Your task to perform on an android device: uninstall "Fetch Rewards" Image 0: 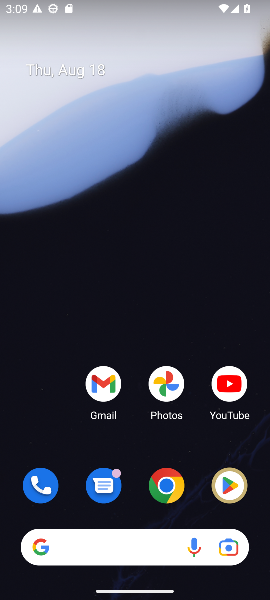
Step 0: click (229, 485)
Your task to perform on an android device: uninstall "Fetch Rewards" Image 1: 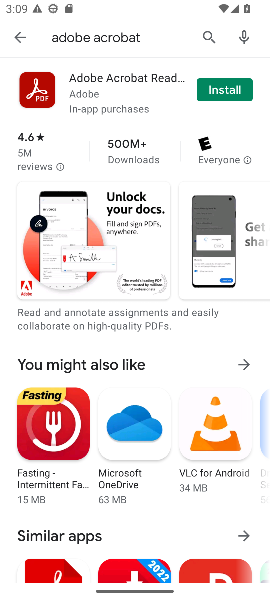
Step 1: click (210, 49)
Your task to perform on an android device: uninstall "Fetch Rewards" Image 2: 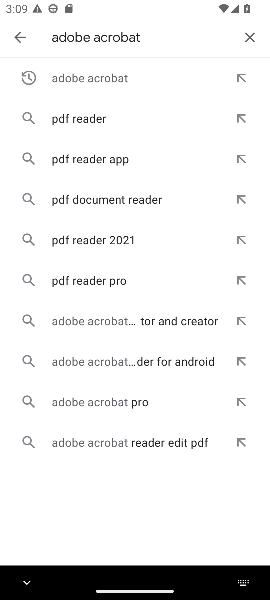
Step 2: click (254, 31)
Your task to perform on an android device: uninstall "Fetch Rewards" Image 3: 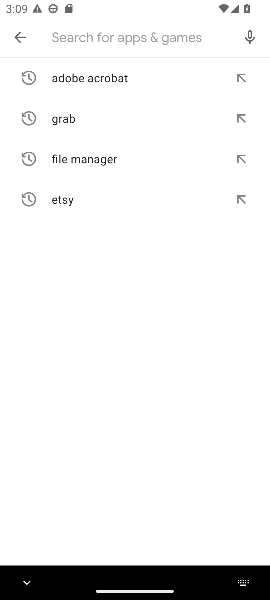
Step 3: click (140, 44)
Your task to perform on an android device: uninstall "Fetch Rewards" Image 4: 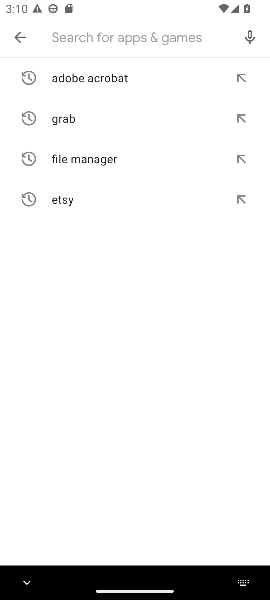
Step 4: type "fetch rewards"
Your task to perform on an android device: uninstall "Fetch Rewards" Image 5: 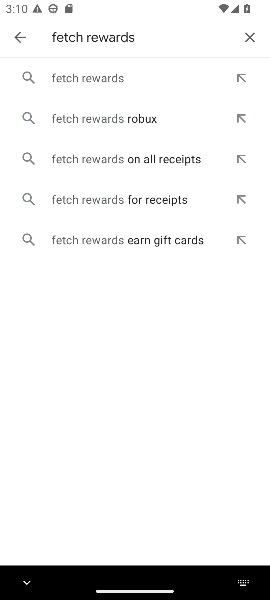
Step 5: click (98, 76)
Your task to perform on an android device: uninstall "Fetch Rewards" Image 6: 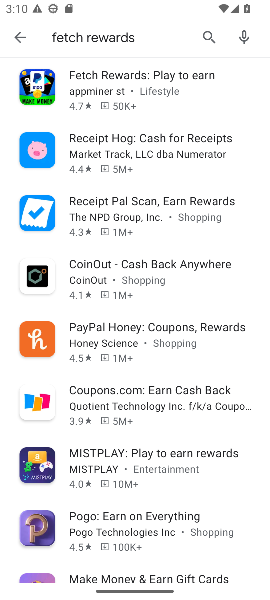
Step 6: click (149, 84)
Your task to perform on an android device: uninstall "Fetch Rewards" Image 7: 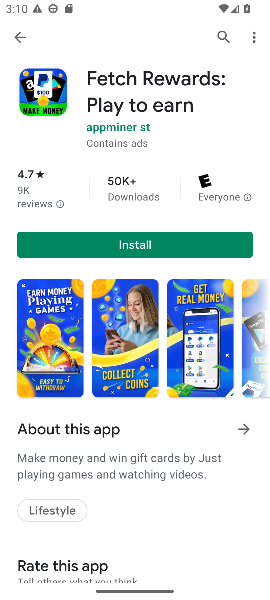
Step 7: task complete